Your task to perform on an android device: uninstall "Microsoft Outlook" Image 0: 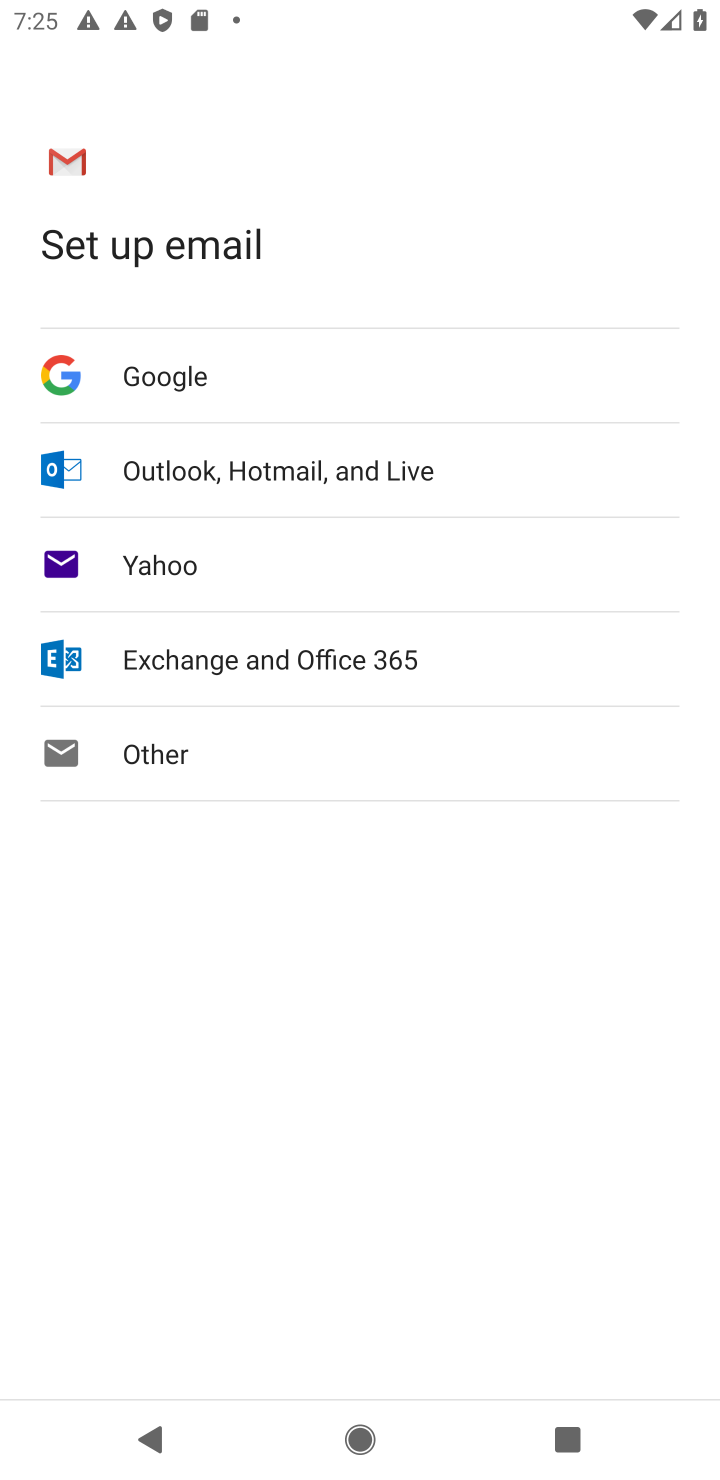
Step 0: press home button
Your task to perform on an android device: uninstall "Microsoft Outlook" Image 1: 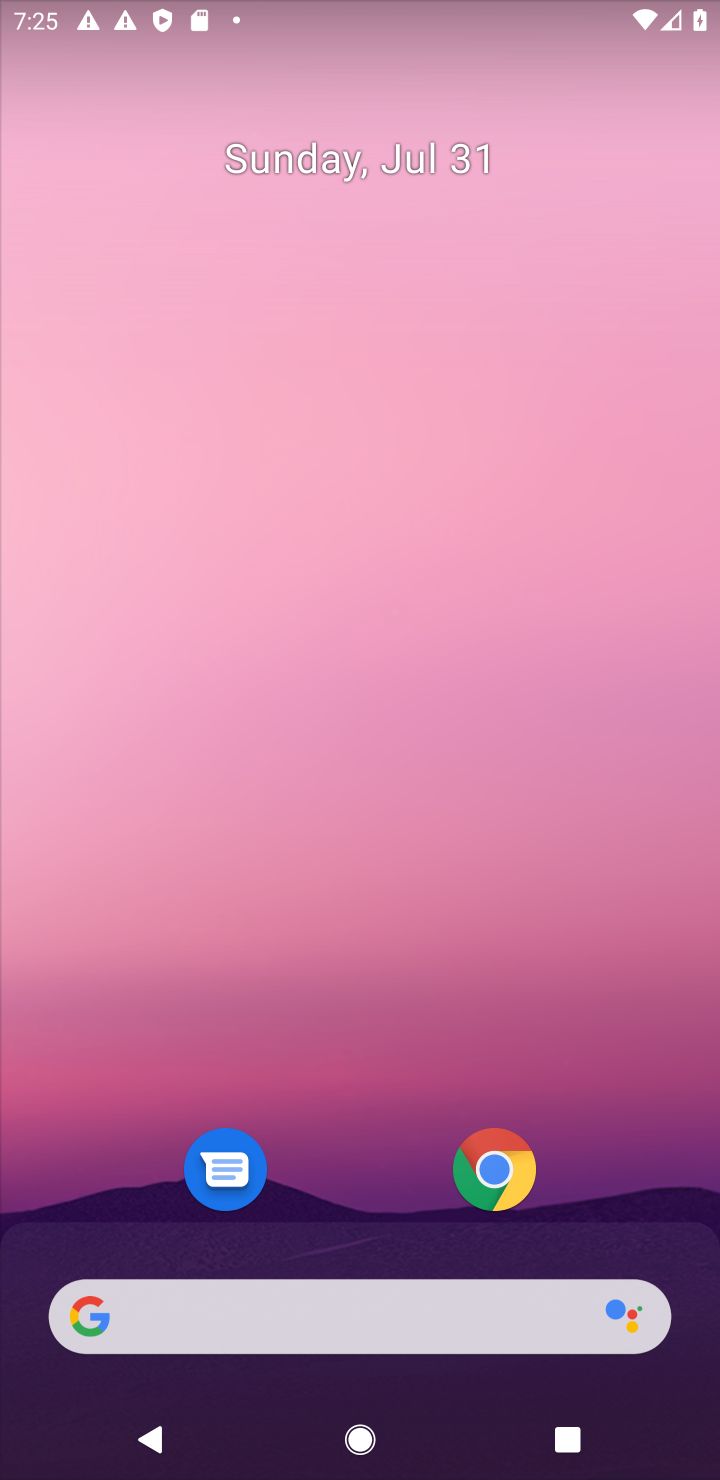
Step 1: drag from (304, 1344) to (334, 441)
Your task to perform on an android device: uninstall "Microsoft Outlook" Image 2: 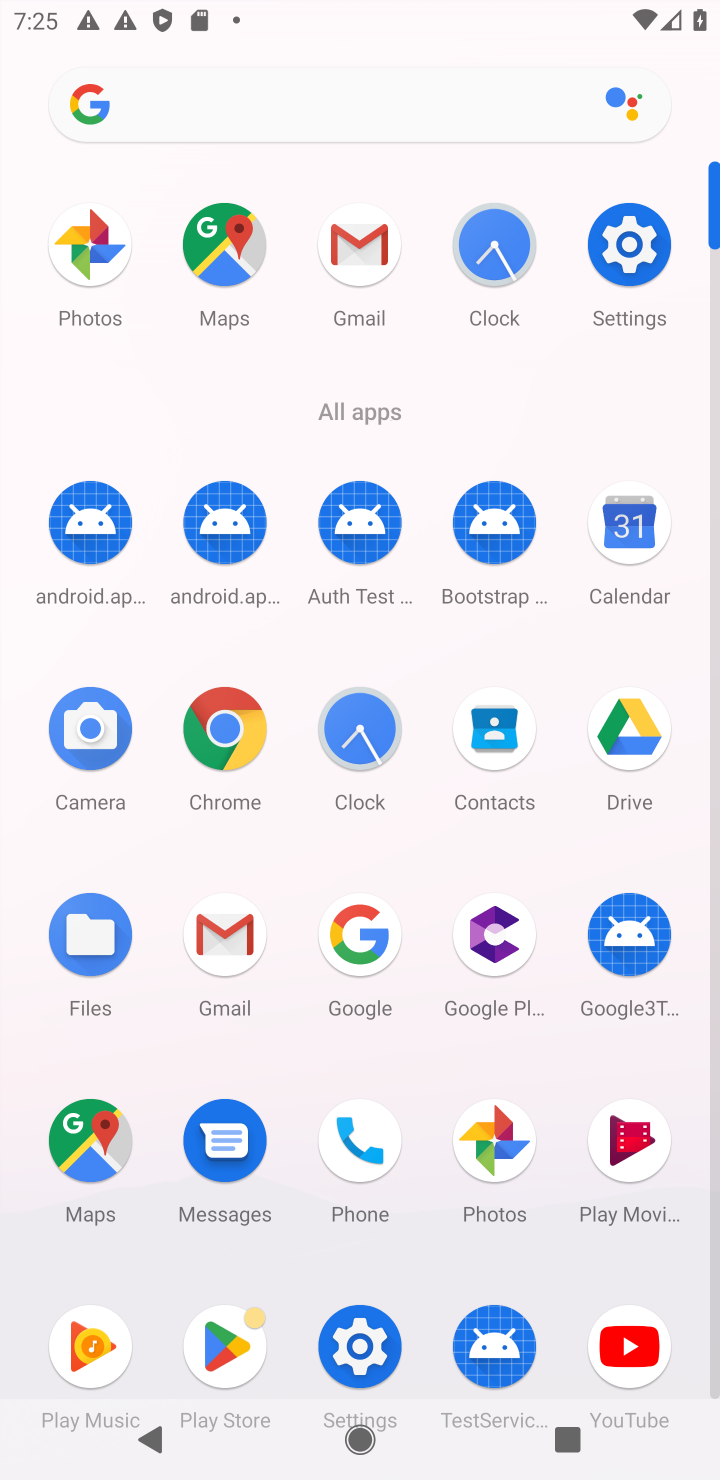
Step 2: drag from (228, 1353) to (368, 736)
Your task to perform on an android device: uninstall "Microsoft Outlook" Image 3: 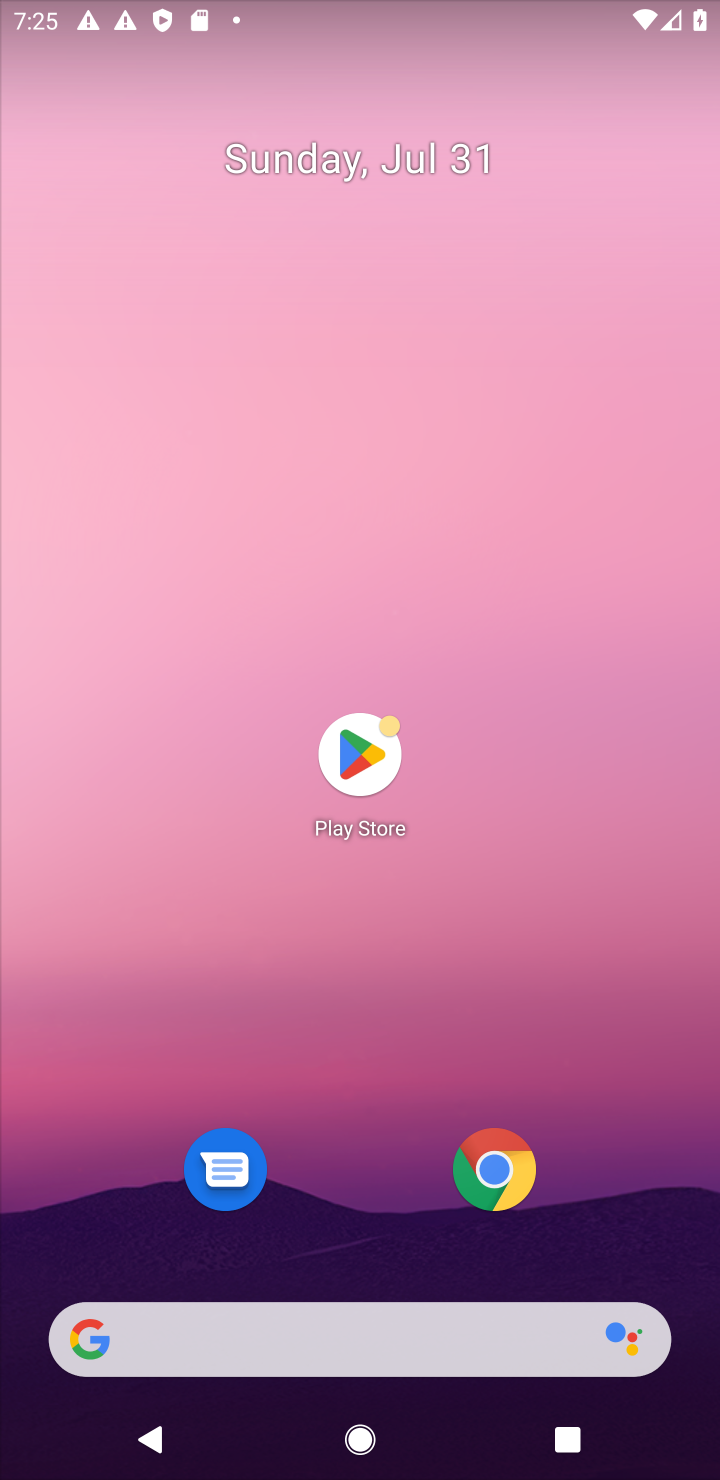
Step 3: click (355, 770)
Your task to perform on an android device: uninstall "Microsoft Outlook" Image 4: 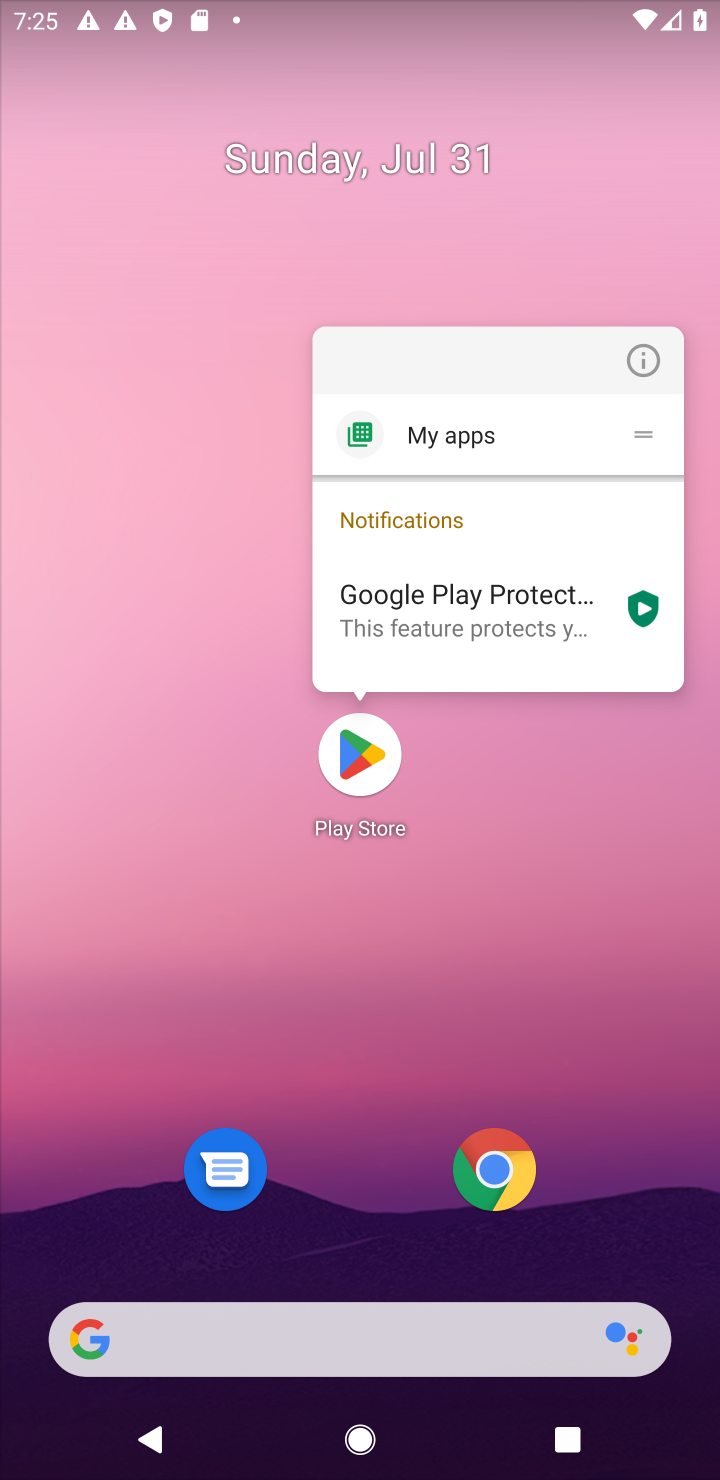
Step 4: click (353, 772)
Your task to perform on an android device: uninstall "Microsoft Outlook" Image 5: 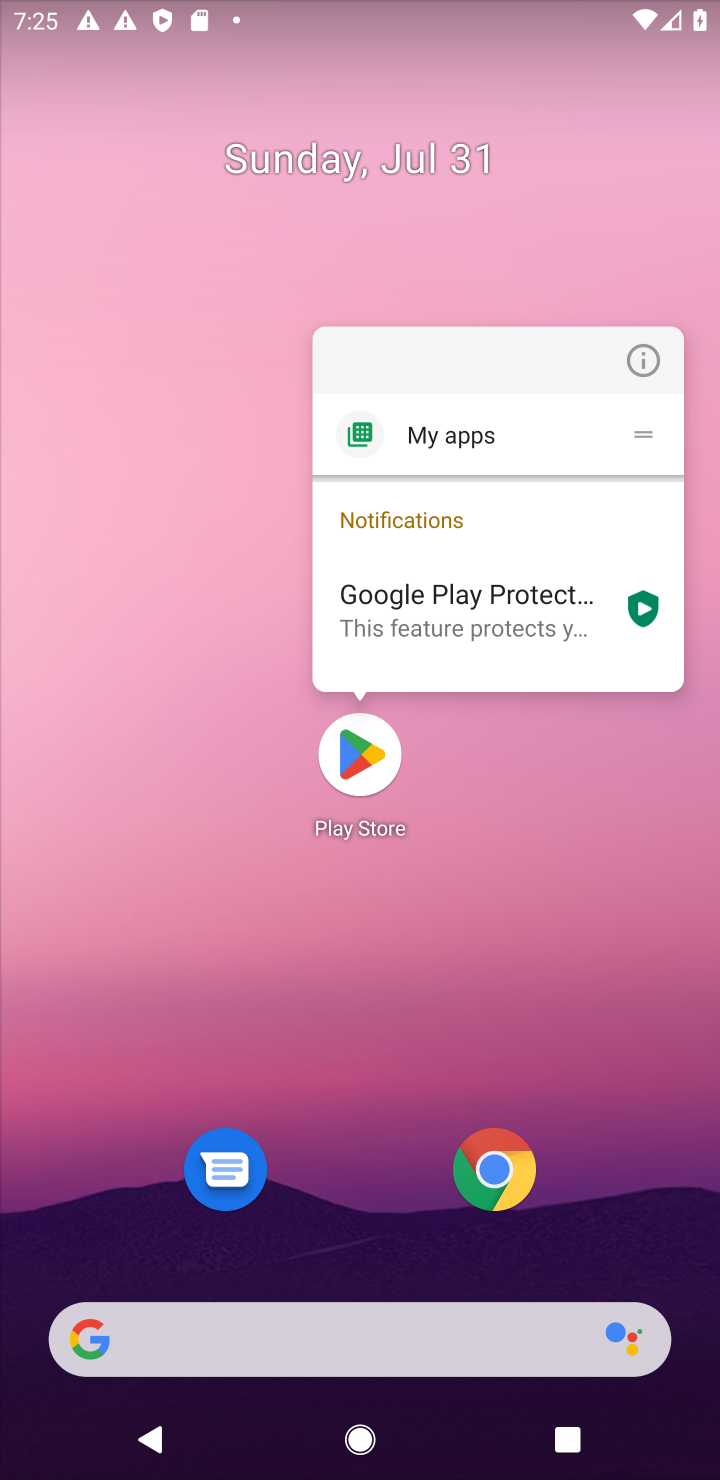
Step 5: click (356, 769)
Your task to perform on an android device: uninstall "Microsoft Outlook" Image 6: 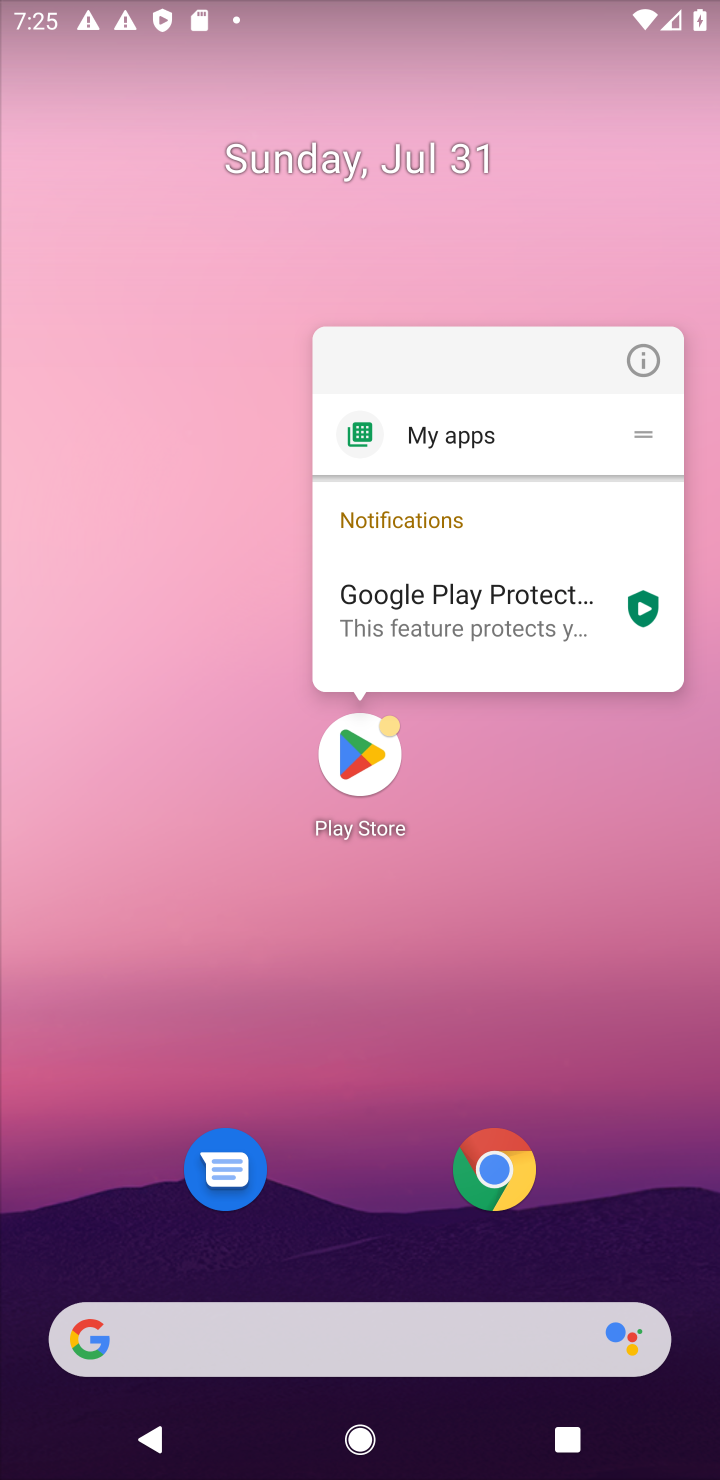
Step 6: click (358, 771)
Your task to perform on an android device: uninstall "Microsoft Outlook" Image 7: 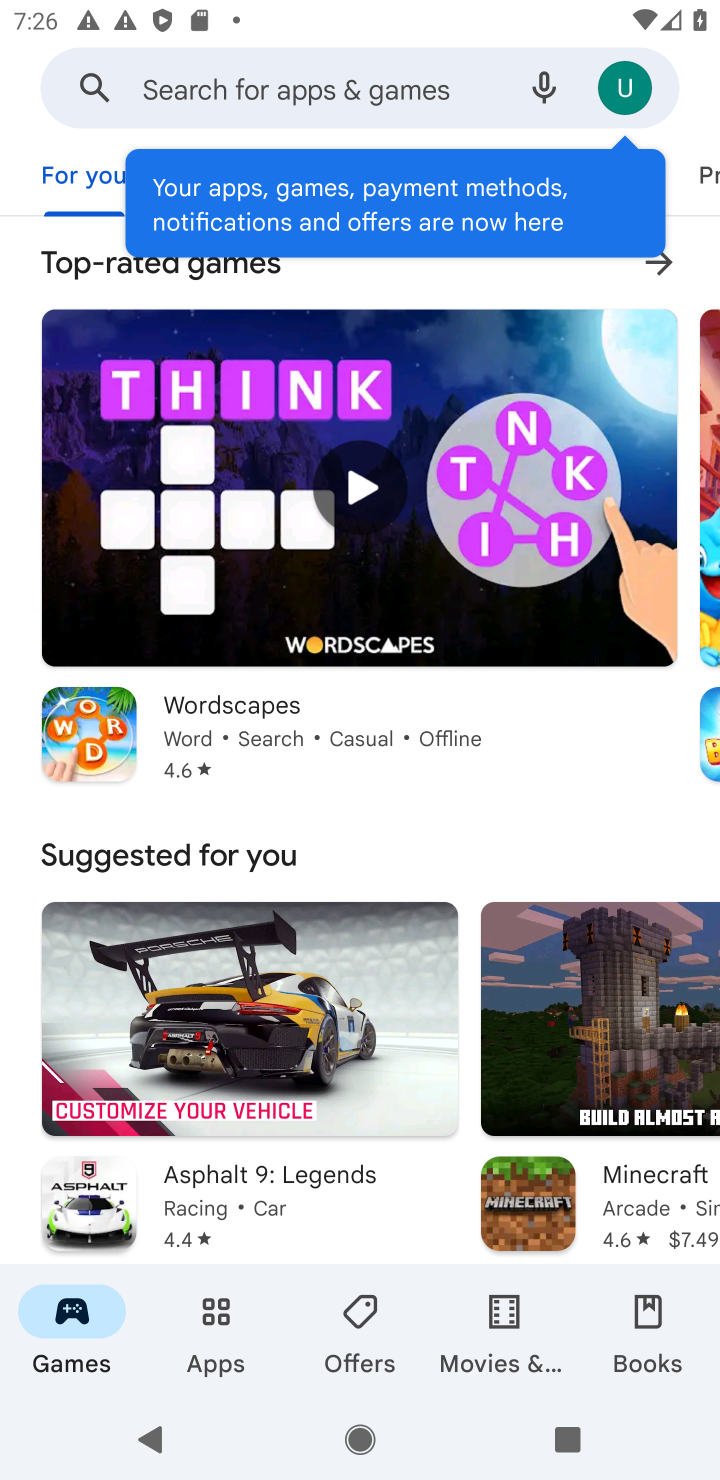
Step 7: click (354, 94)
Your task to perform on an android device: uninstall "Microsoft Outlook" Image 8: 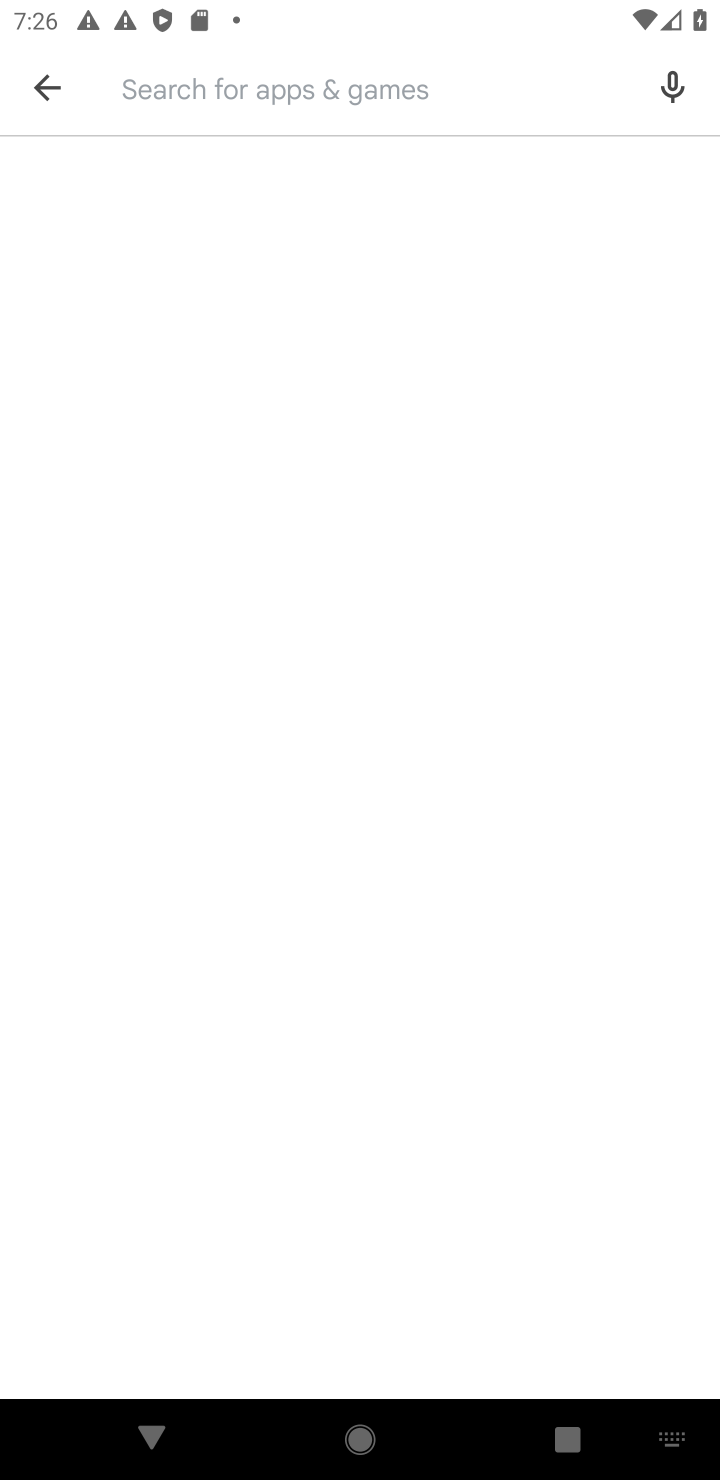
Step 8: type "Microsoft Outlook"
Your task to perform on an android device: uninstall "Microsoft Outlook" Image 9: 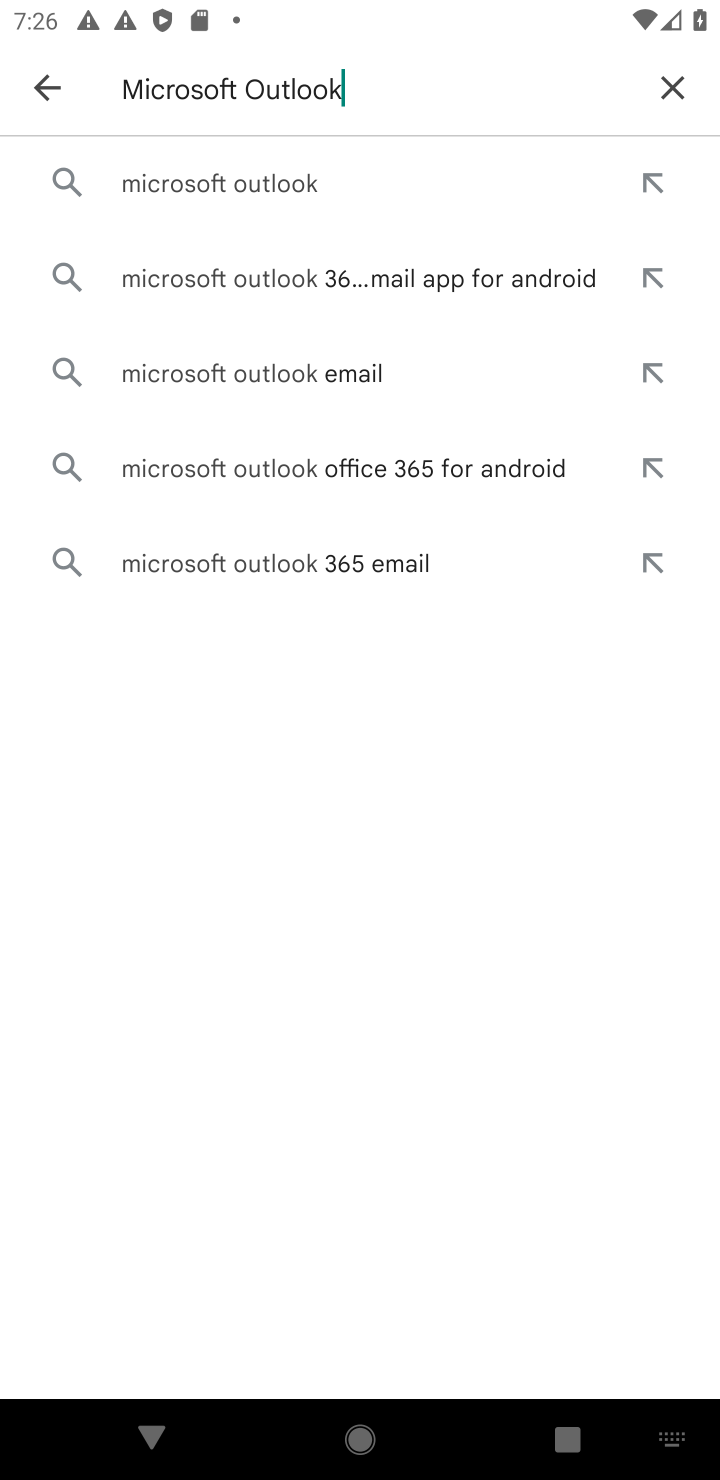
Step 9: click (257, 184)
Your task to perform on an android device: uninstall "Microsoft Outlook" Image 10: 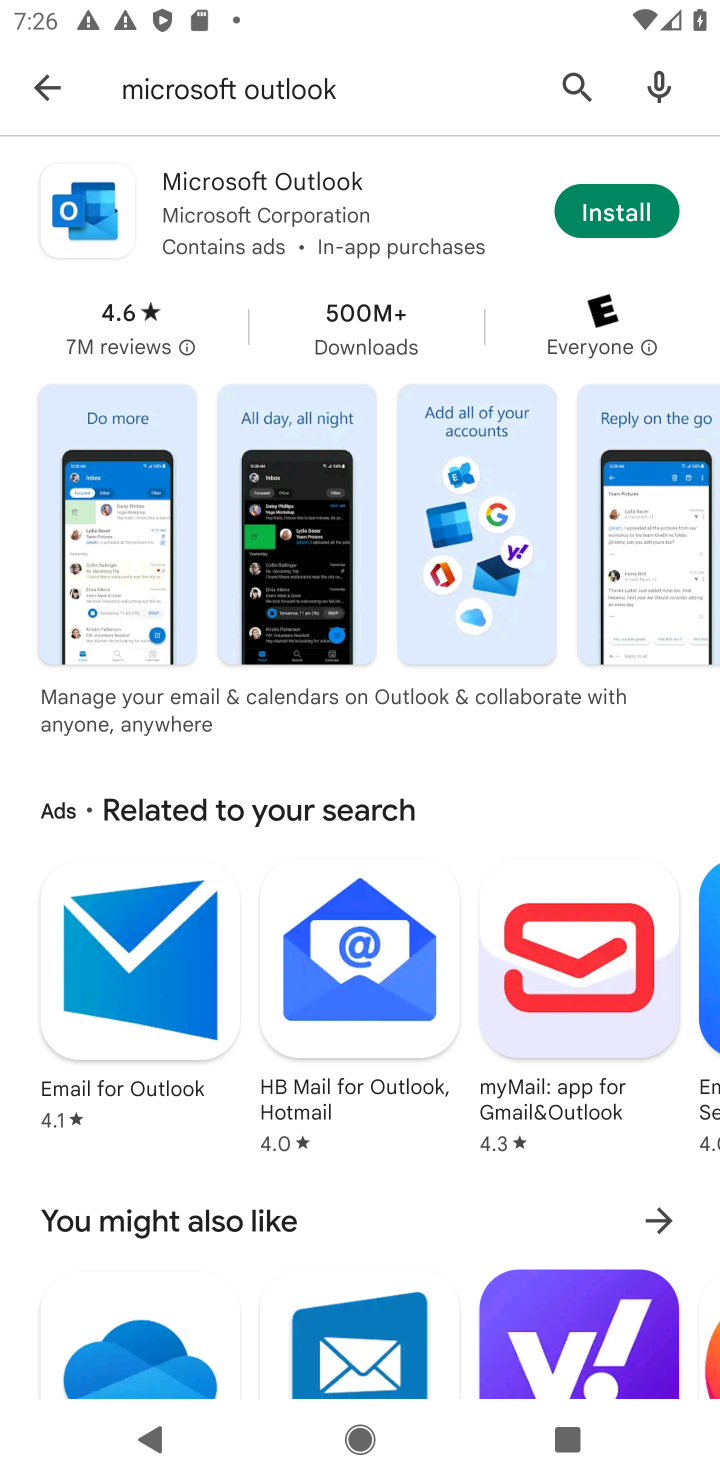
Step 10: task complete